Your task to perform on an android device: Open the phone app and click the voicemail tab. Image 0: 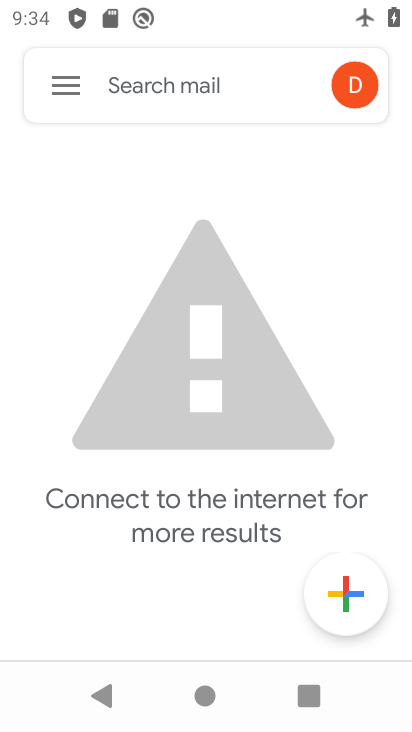
Step 0: press home button
Your task to perform on an android device: Open the phone app and click the voicemail tab. Image 1: 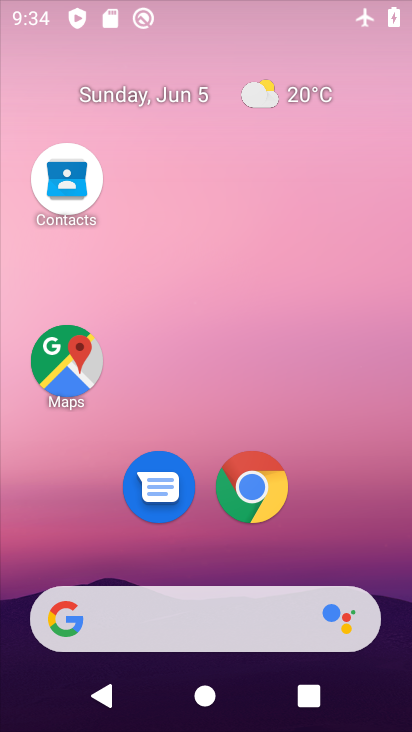
Step 1: drag from (199, 521) to (240, 261)
Your task to perform on an android device: Open the phone app and click the voicemail tab. Image 2: 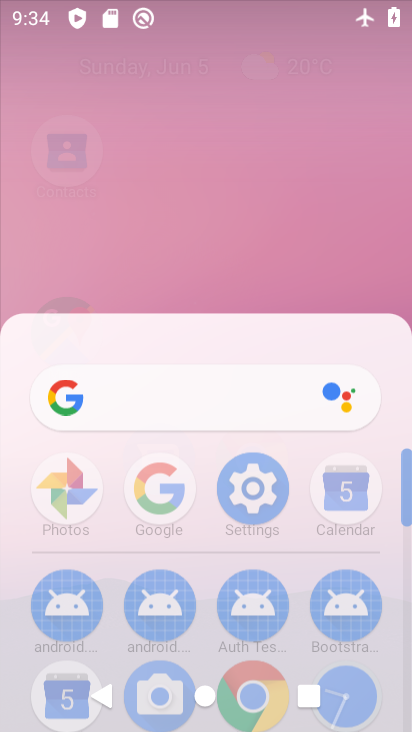
Step 2: click (251, 191)
Your task to perform on an android device: Open the phone app and click the voicemail tab. Image 3: 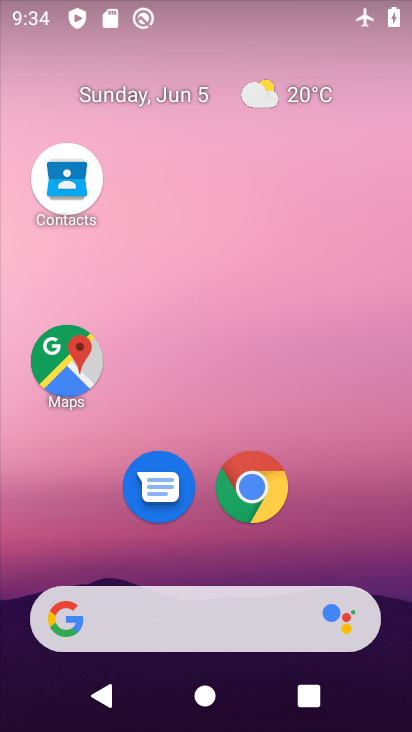
Step 3: drag from (216, 565) to (282, 223)
Your task to perform on an android device: Open the phone app and click the voicemail tab. Image 4: 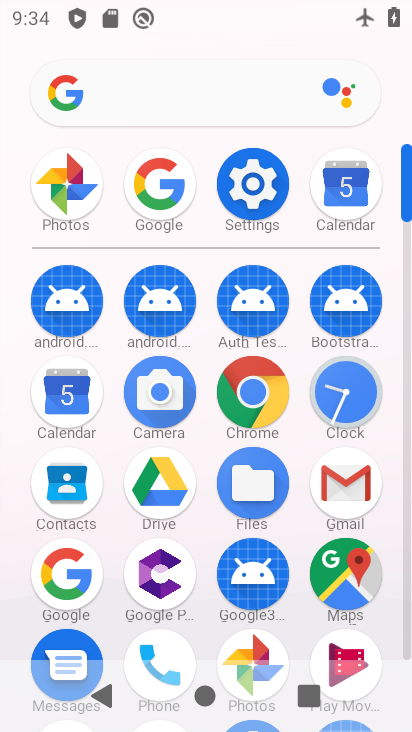
Step 4: drag from (227, 428) to (291, 221)
Your task to perform on an android device: Open the phone app and click the voicemail tab. Image 5: 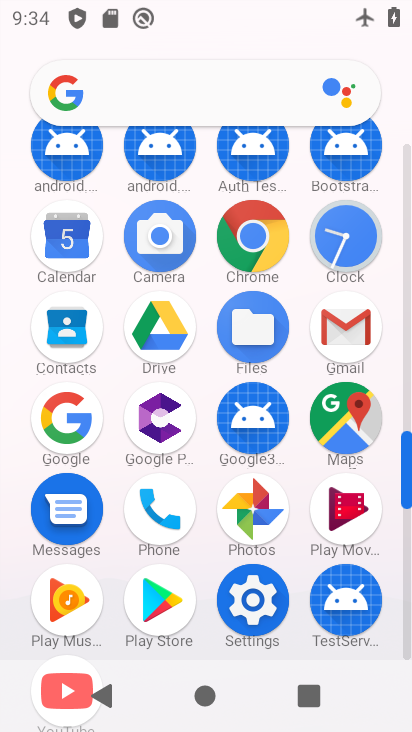
Step 5: click (166, 516)
Your task to perform on an android device: Open the phone app and click the voicemail tab. Image 6: 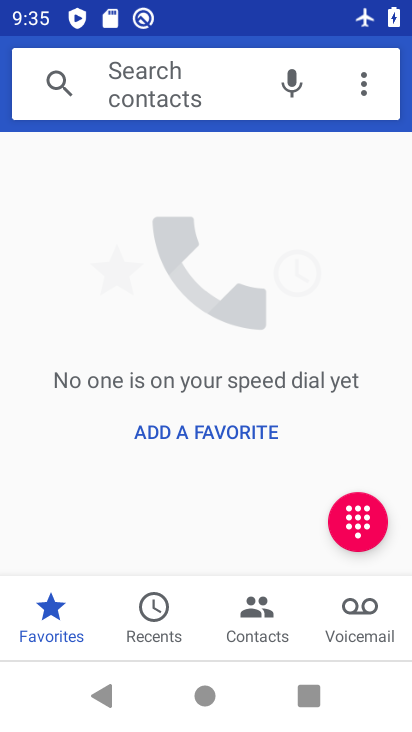
Step 6: click (373, 619)
Your task to perform on an android device: Open the phone app and click the voicemail tab. Image 7: 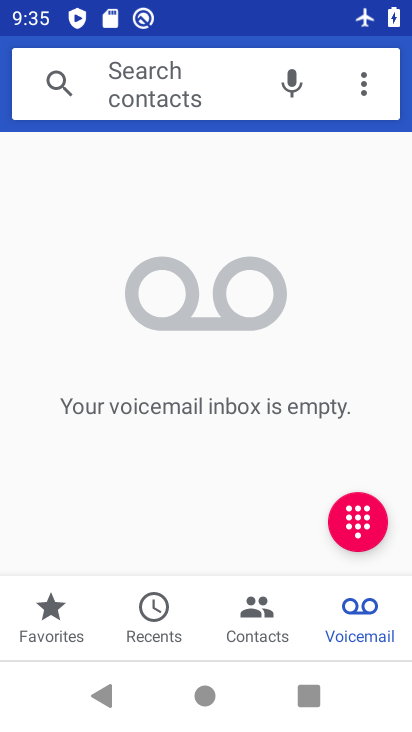
Step 7: task complete